Your task to perform on an android device: Check the news Image 0: 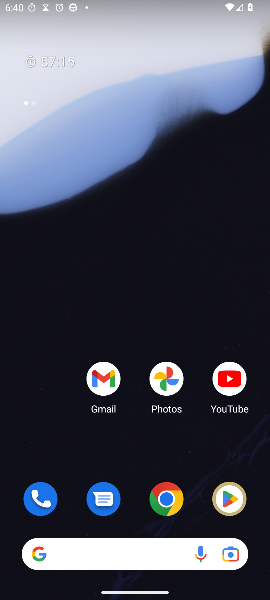
Step 0: drag from (37, 482) to (24, 10)
Your task to perform on an android device: Check the news Image 1: 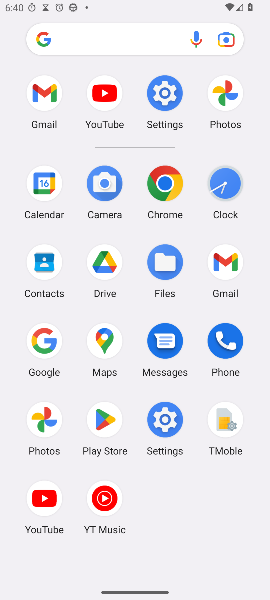
Step 1: click (164, 188)
Your task to perform on an android device: Check the news Image 2: 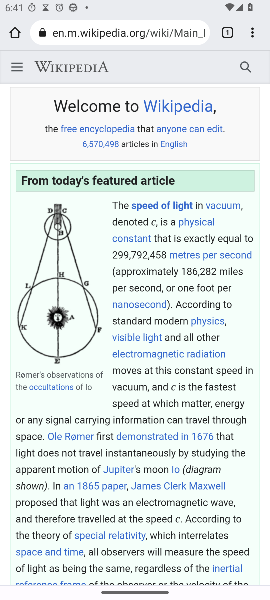
Step 2: task complete